Your task to perform on an android device: Turn off the flashlight Image 0: 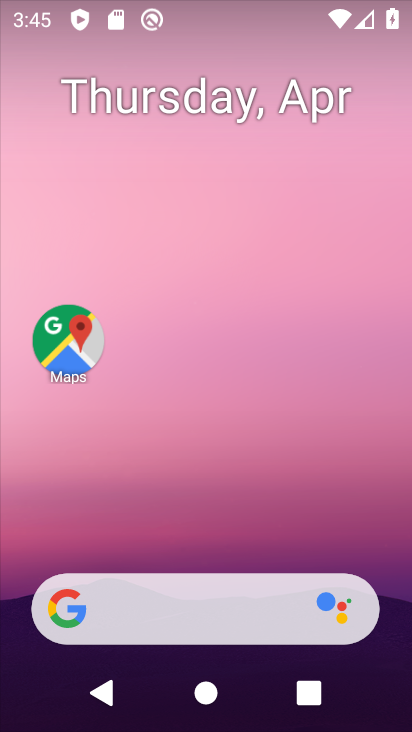
Step 0: drag from (216, 717) to (217, 99)
Your task to perform on an android device: Turn off the flashlight Image 1: 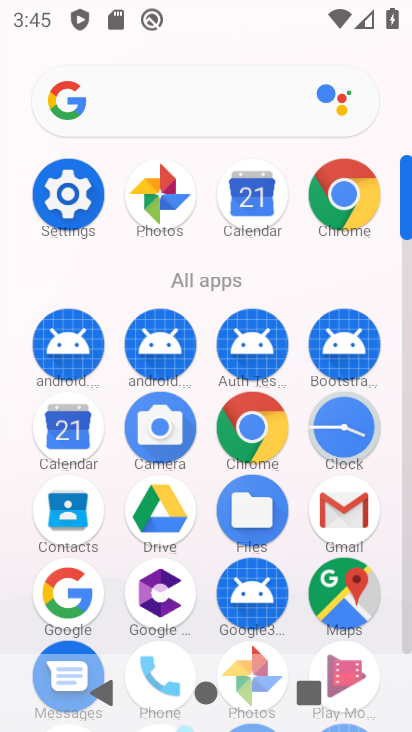
Step 1: click (72, 193)
Your task to perform on an android device: Turn off the flashlight Image 2: 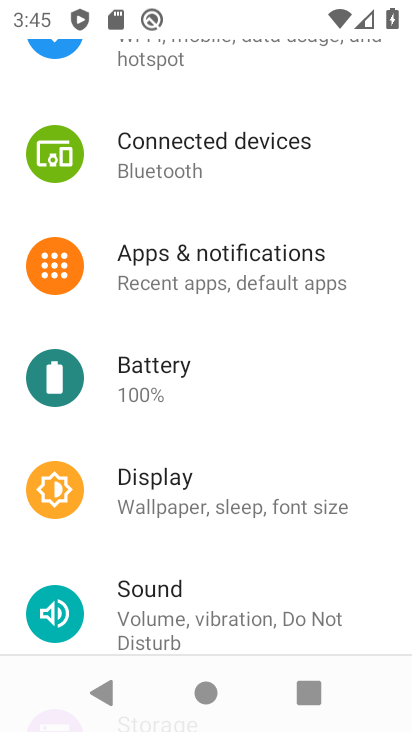
Step 2: click (200, 108)
Your task to perform on an android device: Turn off the flashlight Image 3: 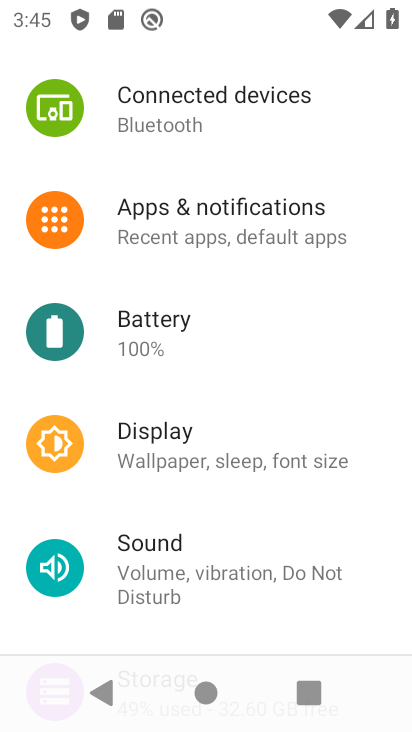
Step 3: task complete